Your task to perform on an android device: Show me the alarms in the clock app Image 0: 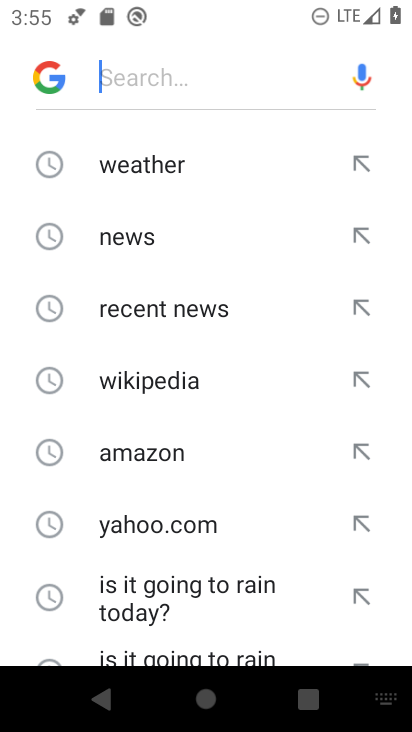
Step 0: press home button
Your task to perform on an android device: Show me the alarms in the clock app Image 1: 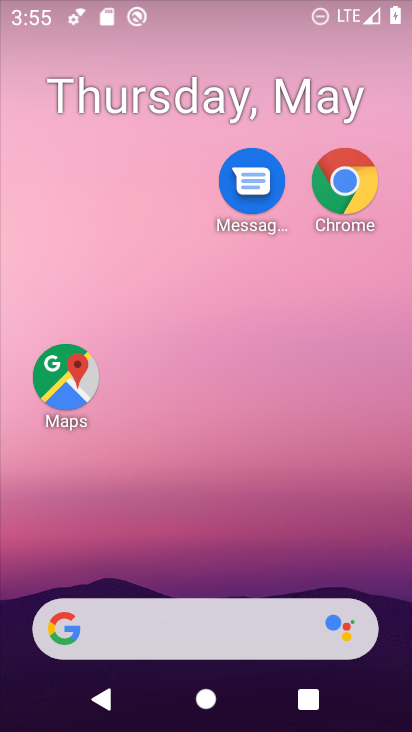
Step 1: drag from (359, 639) to (406, 364)
Your task to perform on an android device: Show me the alarms in the clock app Image 2: 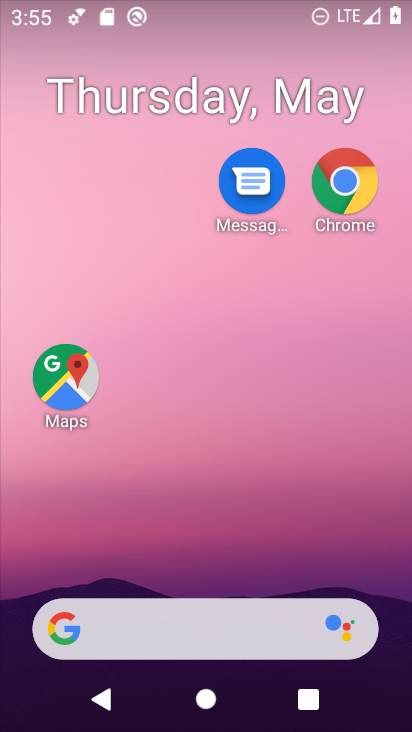
Step 2: click (351, 388)
Your task to perform on an android device: Show me the alarms in the clock app Image 3: 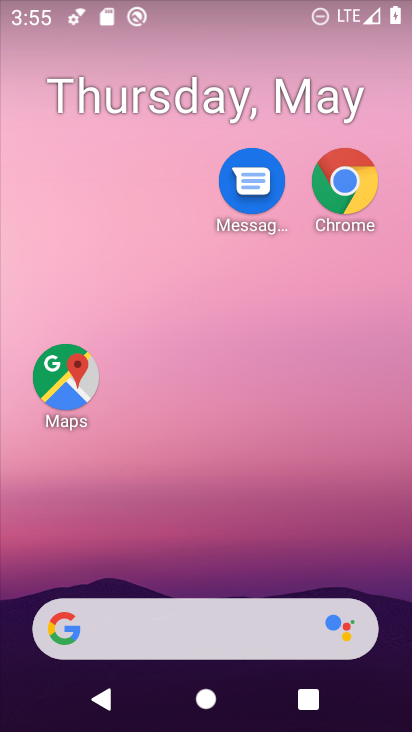
Step 3: drag from (326, 591) to (403, 0)
Your task to perform on an android device: Show me the alarms in the clock app Image 4: 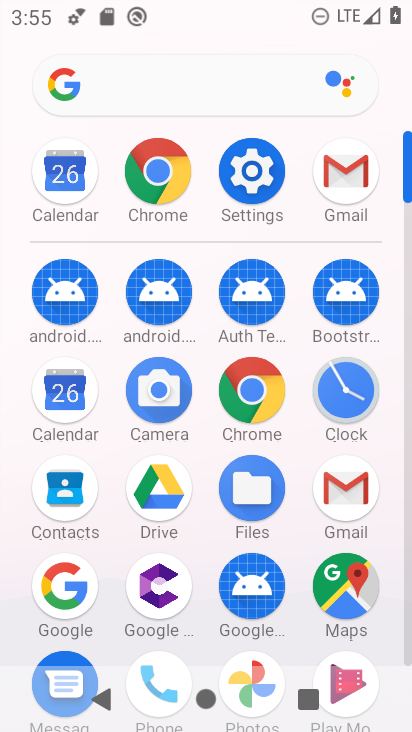
Step 4: click (352, 398)
Your task to perform on an android device: Show me the alarms in the clock app Image 5: 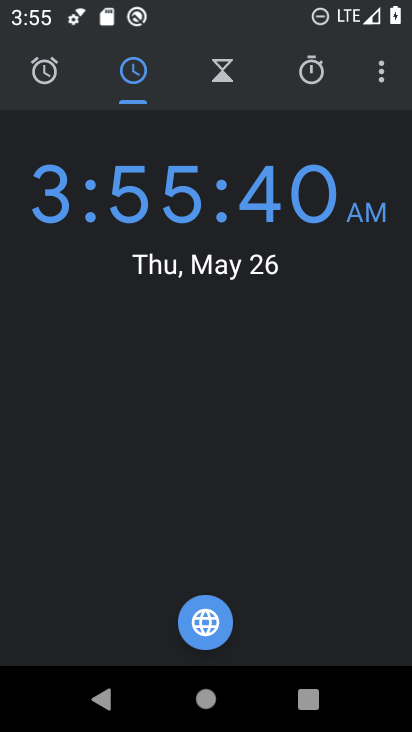
Step 5: click (67, 83)
Your task to perform on an android device: Show me the alarms in the clock app Image 6: 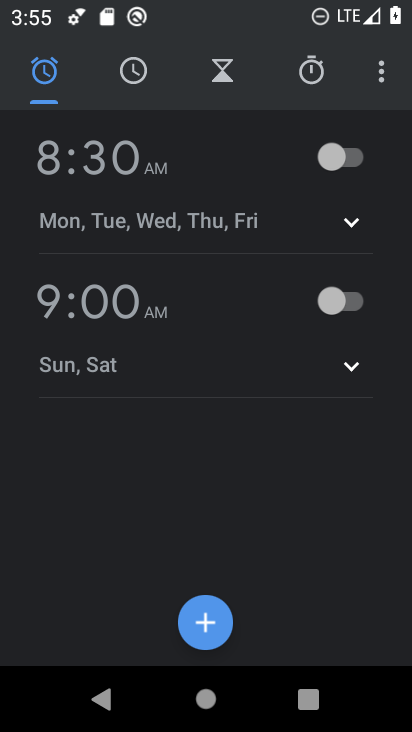
Step 6: click (361, 161)
Your task to perform on an android device: Show me the alarms in the clock app Image 7: 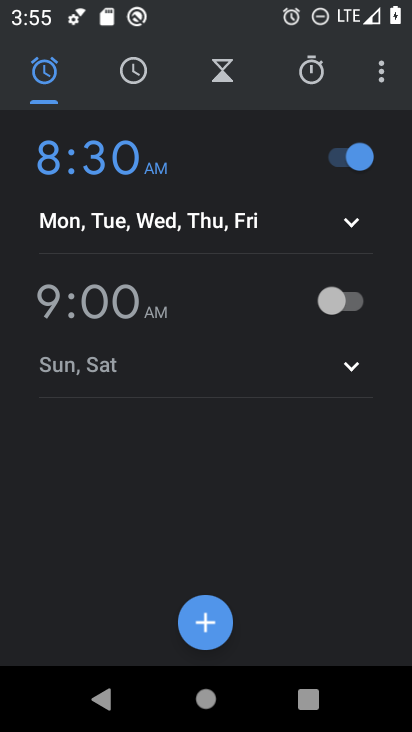
Step 7: task complete